Your task to perform on an android device: toggle priority inbox in the gmail app Image 0: 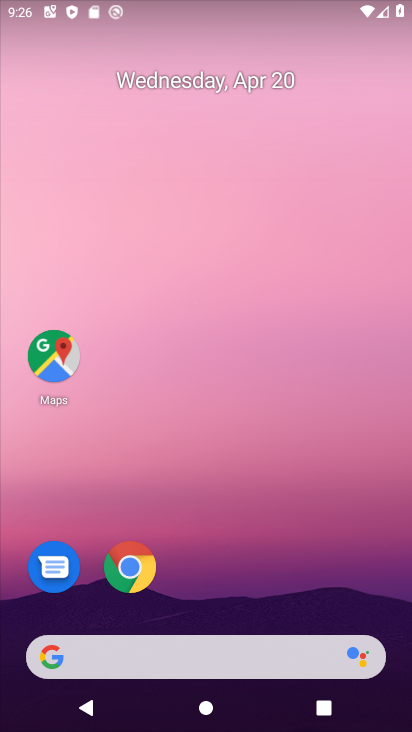
Step 0: drag from (262, 631) to (294, 301)
Your task to perform on an android device: toggle priority inbox in the gmail app Image 1: 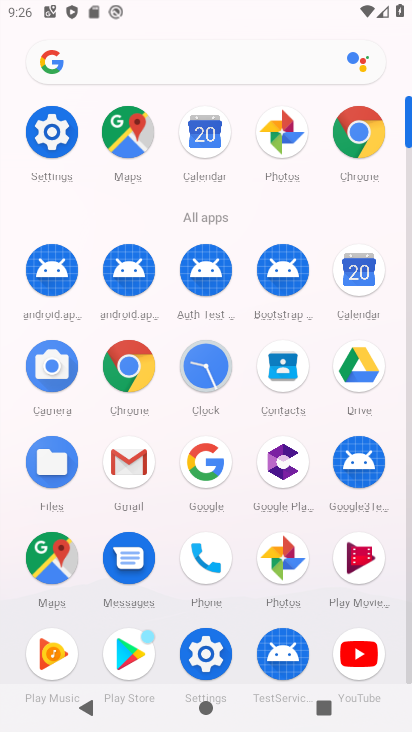
Step 1: click (125, 453)
Your task to perform on an android device: toggle priority inbox in the gmail app Image 2: 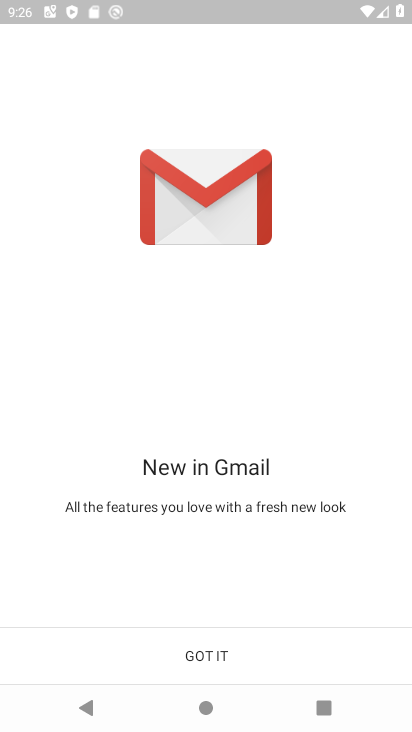
Step 2: click (189, 645)
Your task to perform on an android device: toggle priority inbox in the gmail app Image 3: 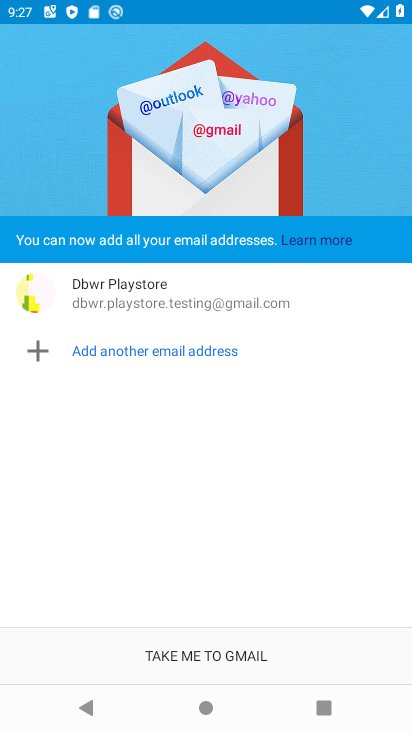
Step 3: click (188, 645)
Your task to perform on an android device: toggle priority inbox in the gmail app Image 4: 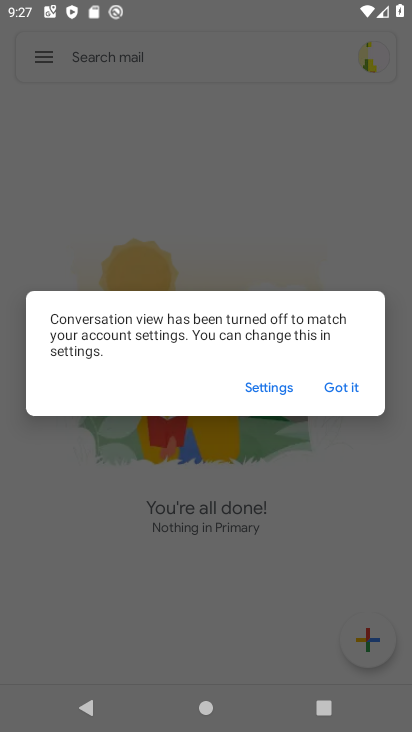
Step 4: click (335, 386)
Your task to perform on an android device: toggle priority inbox in the gmail app Image 5: 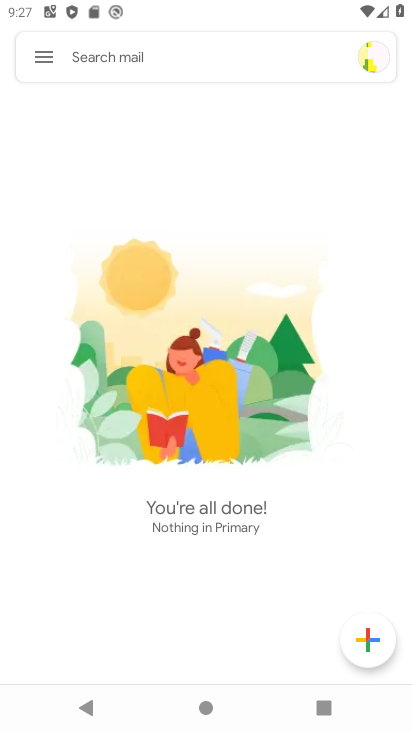
Step 5: click (37, 59)
Your task to perform on an android device: toggle priority inbox in the gmail app Image 6: 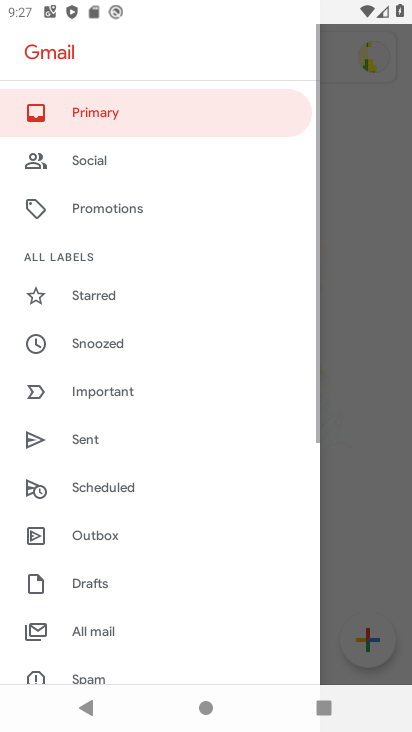
Step 6: drag from (146, 605) to (219, 249)
Your task to perform on an android device: toggle priority inbox in the gmail app Image 7: 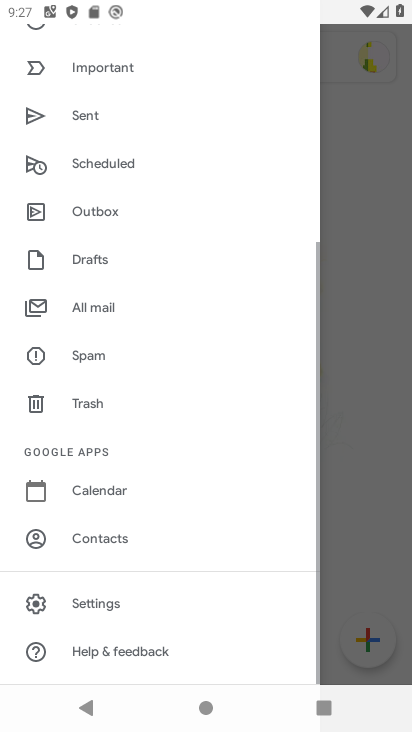
Step 7: click (79, 607)
Your task to perform on an android device: toggle priority inbox in the gmail app Image 8: 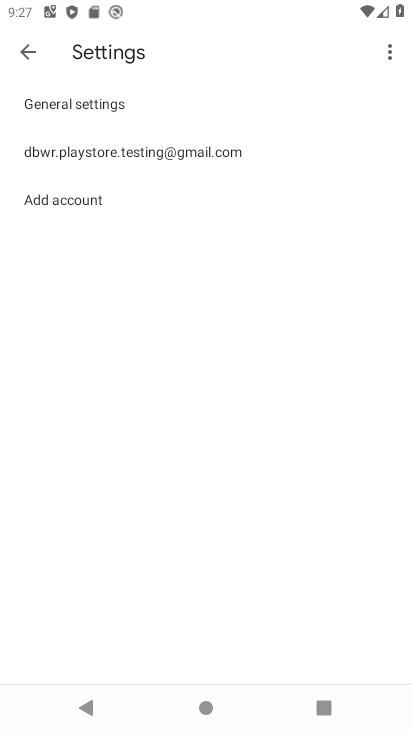
Step 8: click (214, 160)
Your task to perform on an android device: toggle priority inbox in the gmail app Image 9: 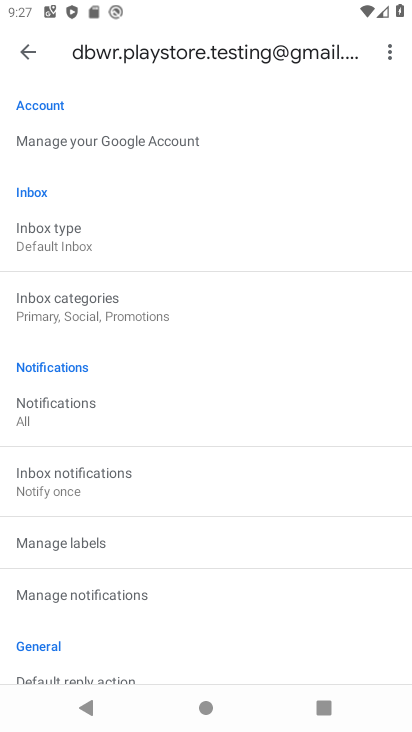
Step 9: click (124, 242)
Your task to perform on an android device: toggle priority inbox in the gmail app Image 10: 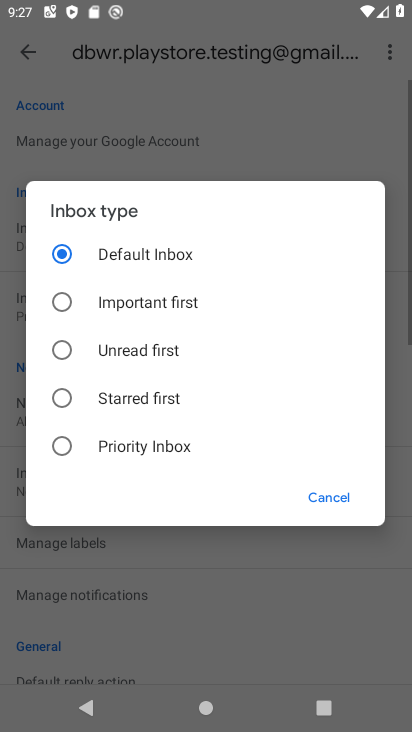
Step 10: click (142, 455)
Your task to perform on an android device: toggle priority inbox in the gmail app Image 11: 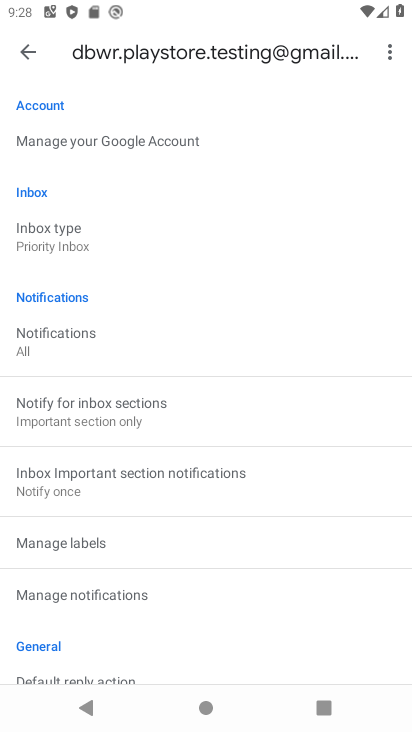
Step 11: task complete